Your task to perform on an android device: Show me the alarms in the clock app Image 0: 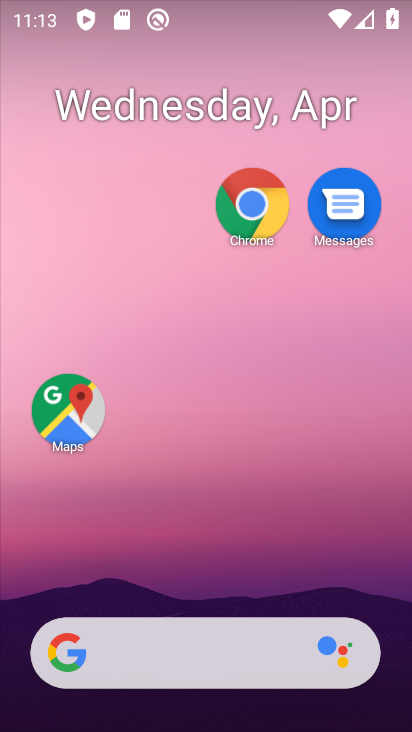
Step 0: drag from (212, 586) to (172, 11)
Your task to perform on an android device: Show me the alarms in the clock app Image 1: 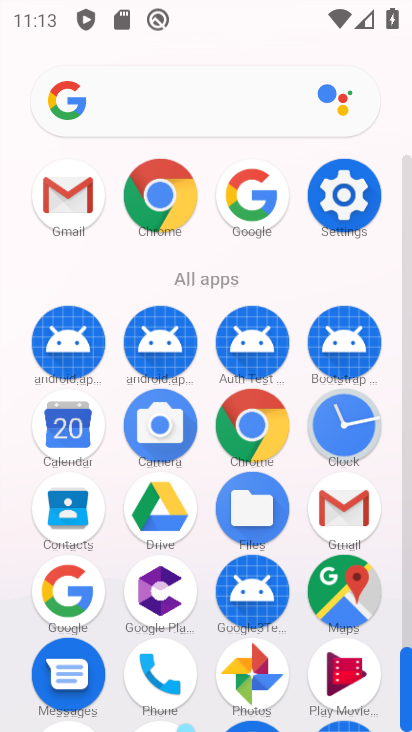
Step 1: click (349, 421)
Your task to perform on an android device: Show me the alarms in the clock app Image 2: 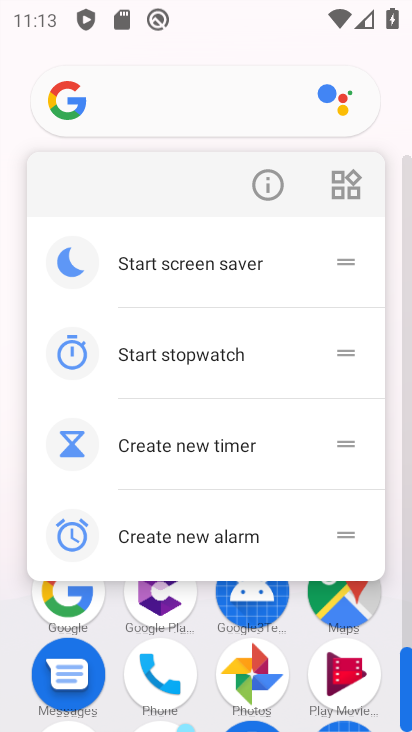
Step 2: click (405, 379)
Your task to perform on an android device: Show me the alarms in the clock app Image 3: 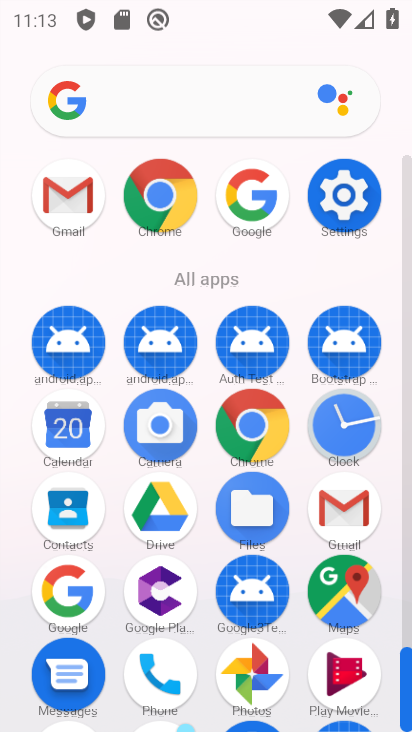
Step 3: click (341, 432)
Your task to perform on an android device: Show me the alarms in the clock app Image 4: 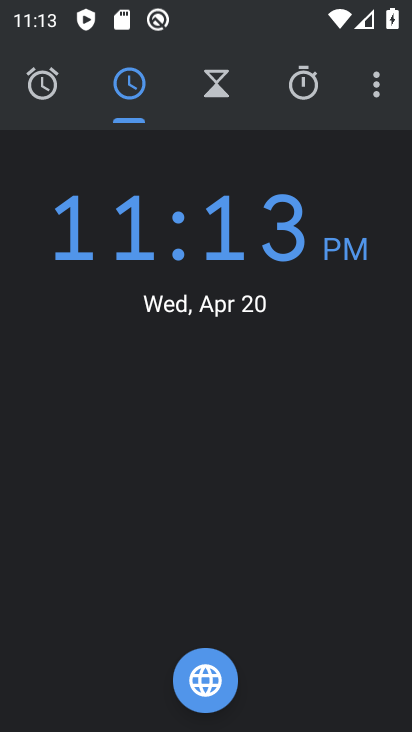
Step 4: click (45, 113)
Your task to perform on an android device: Show me the alarms in the clock app Image 5: 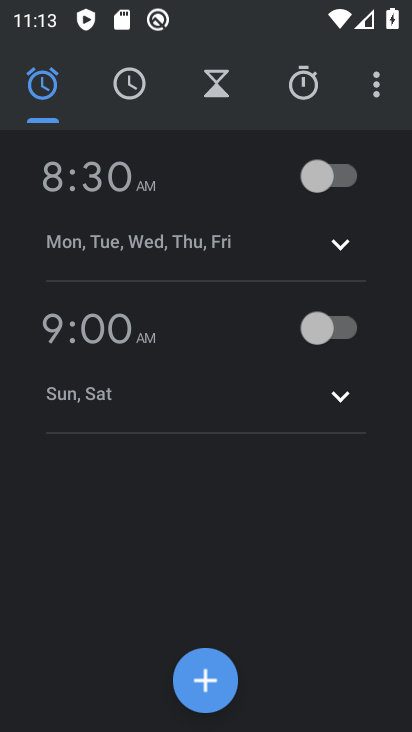
Step 5: click (334, 256)
Your task to perform on an android device: Show me the alarms in the clock app Image 6: 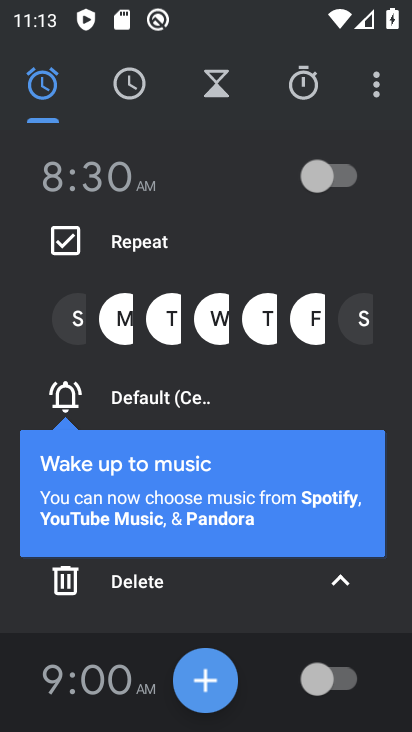
Step 6: task complete